Your task to perform on an android device: Show me the alarms in the clock app Image 0: 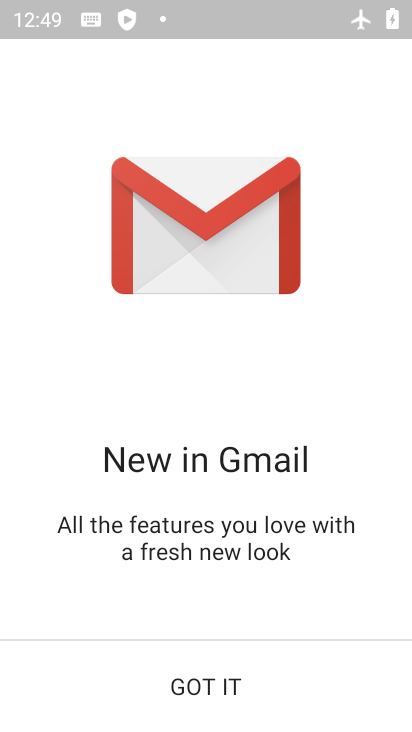
Step 0: click (241, 687)
Your task to perform on an android device: Show me the alarms in the clock app Image 1: 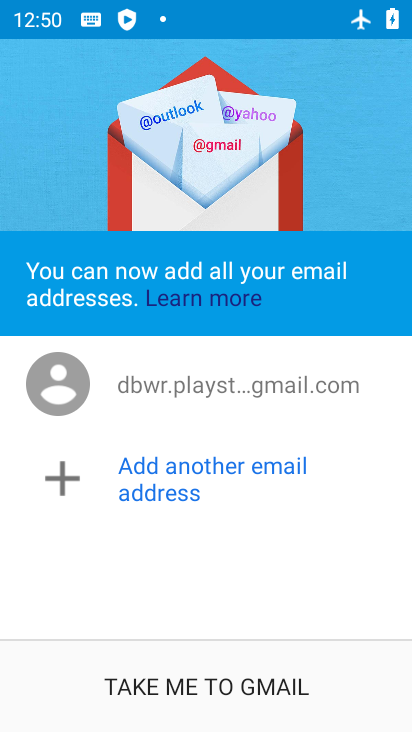
Step 1: press home button
Your task to perform on an android device: Show me the alarms in the clock app Image 2: 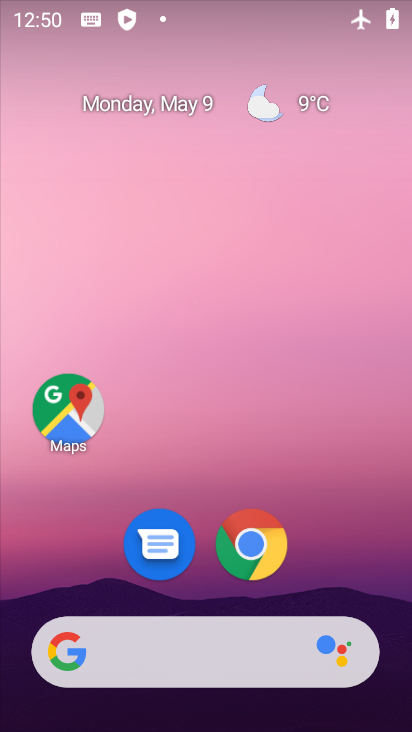
Step 2: drag from (342, 607) to (309, 110)
Your task to perform on an android device: Show me the alarms in the clock app Image 3: 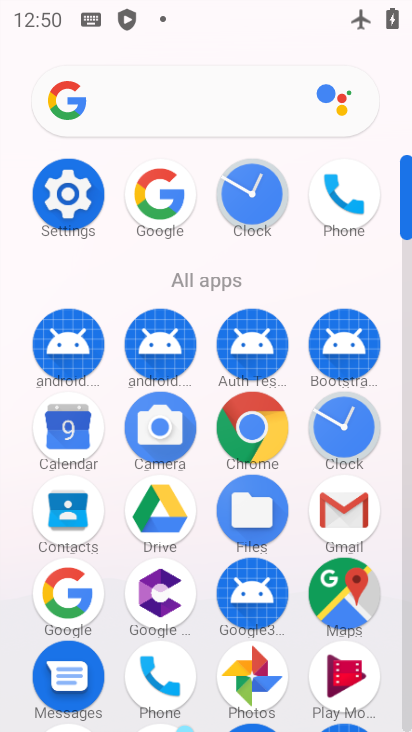
Step 3: click (343, 421)
Your task to perform on an android device: Show me the alarms in the clock app Image 4: 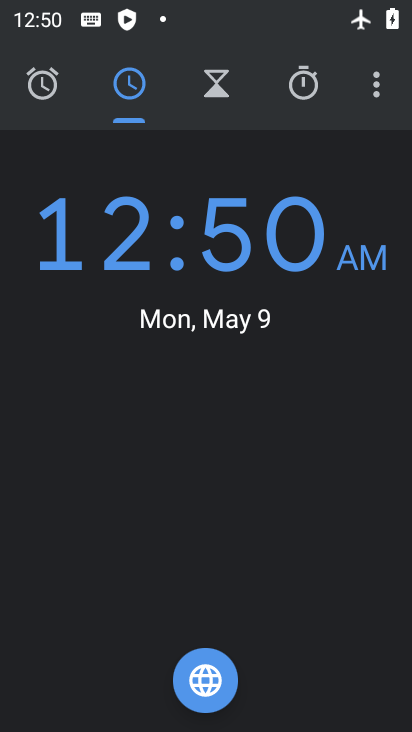
Step 4: click (60, 78)
Your task to perform on an android device: Show me the alarms in the clock app Image 5: 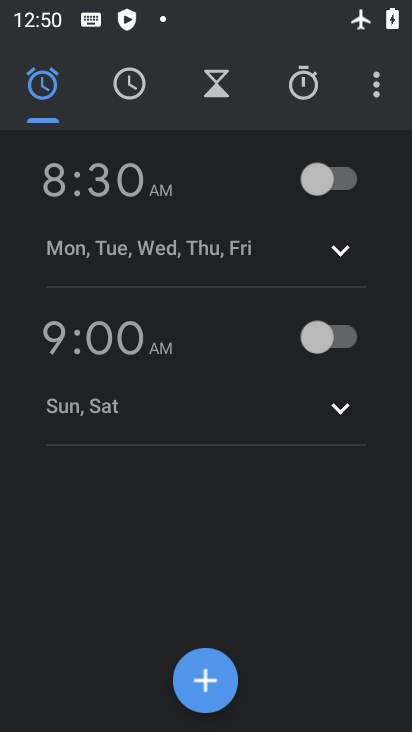
Step 5: task complete